Your task to perform on an android device: remove spam from my inbox in the gmail app Image 0: 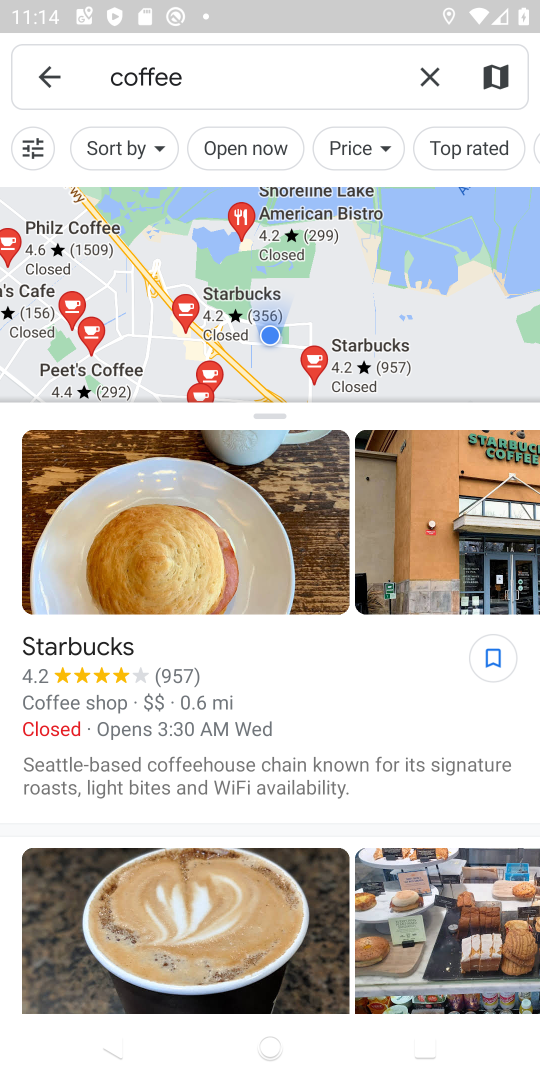
Step 0: press home button
Your task to perform on an android device: remove spam from my inbox in the gmail app Image 1: 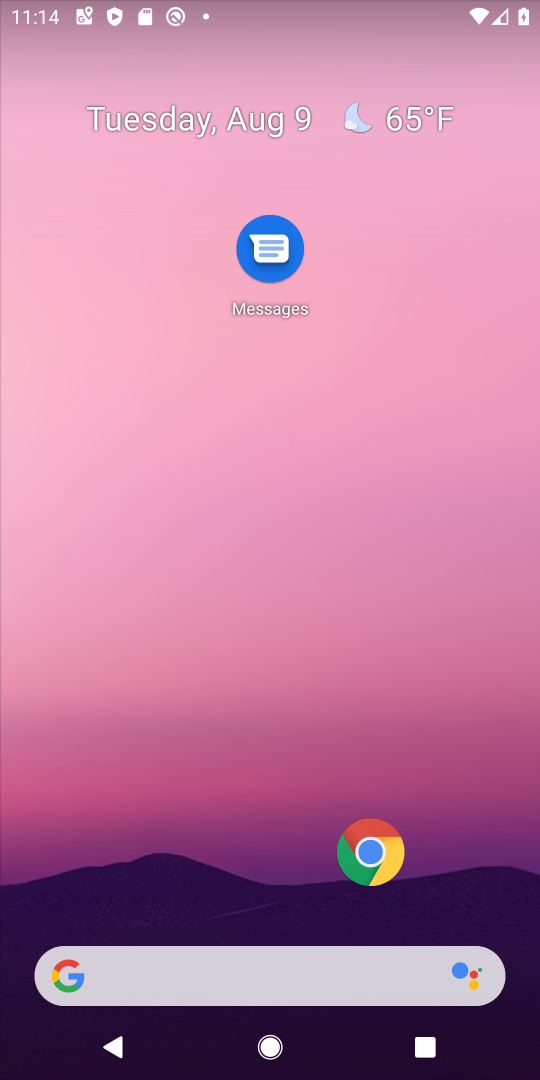
Step 1: drag from (280, 918) to (55, 32)
Your task to perform on an android device: remove spam from my inbox in the gmail app Image 2: 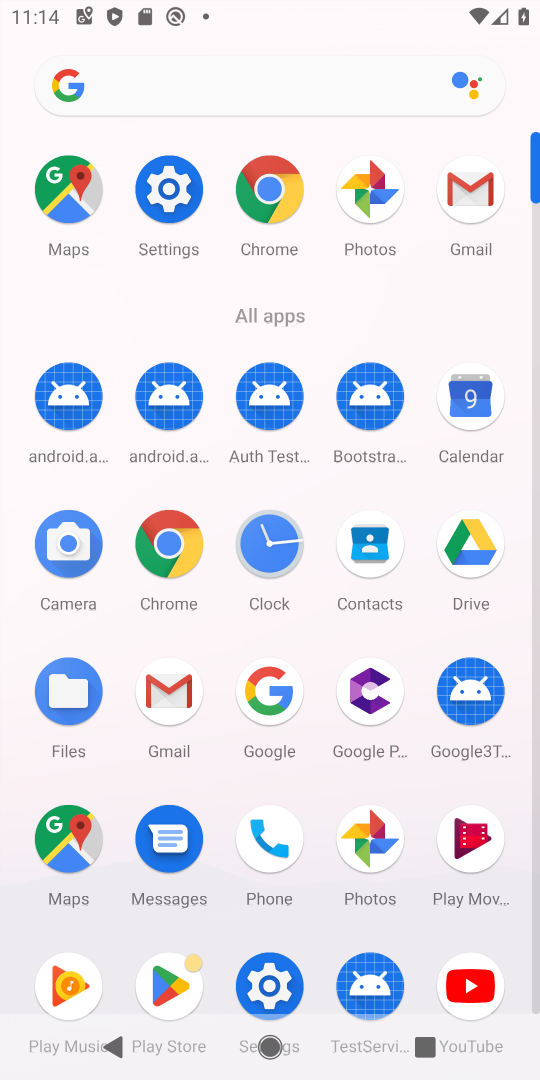
Step 2: click (482, 207)
Your task to perform on an android device: remove spam from my inbox in the gmail app Image 3: 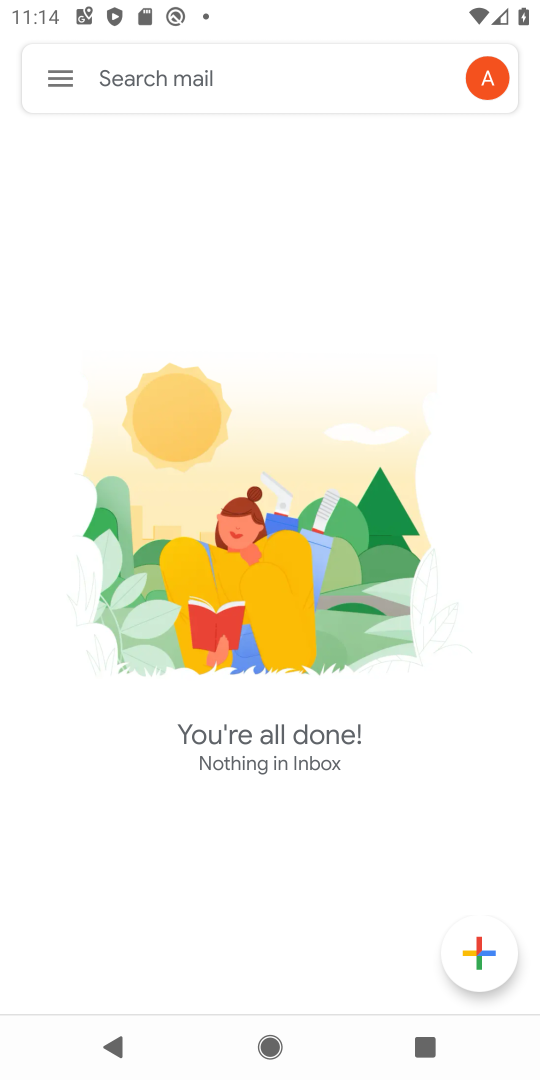
Step 3: click (67, 78)
Your task to perform on an android device: remove spam from my inbox in the gmail app Image 4: 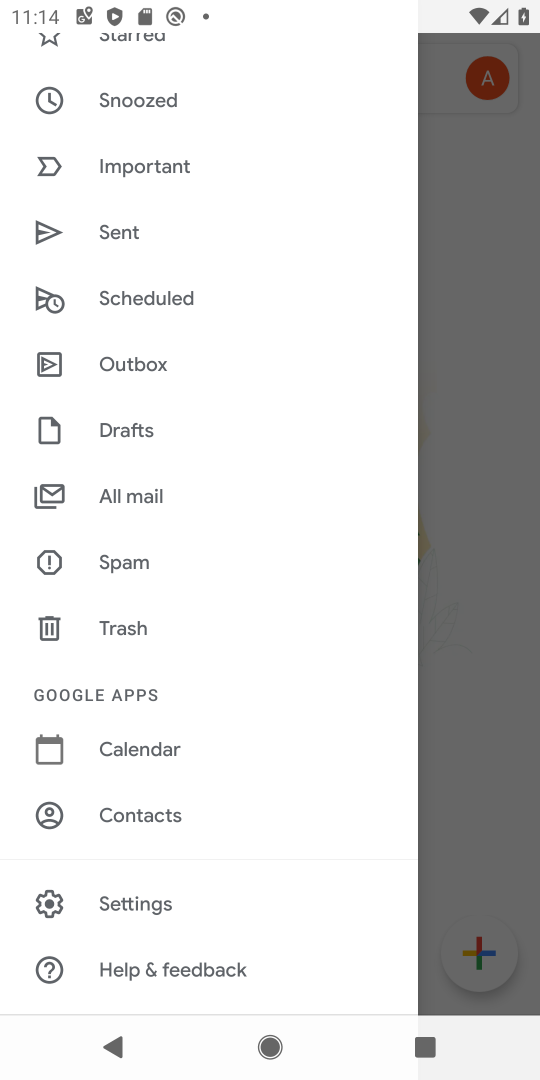
Step 4: click (74, 582)
Your task to perform on an android device: remove spam from my inbox in the gmail app Image 5: 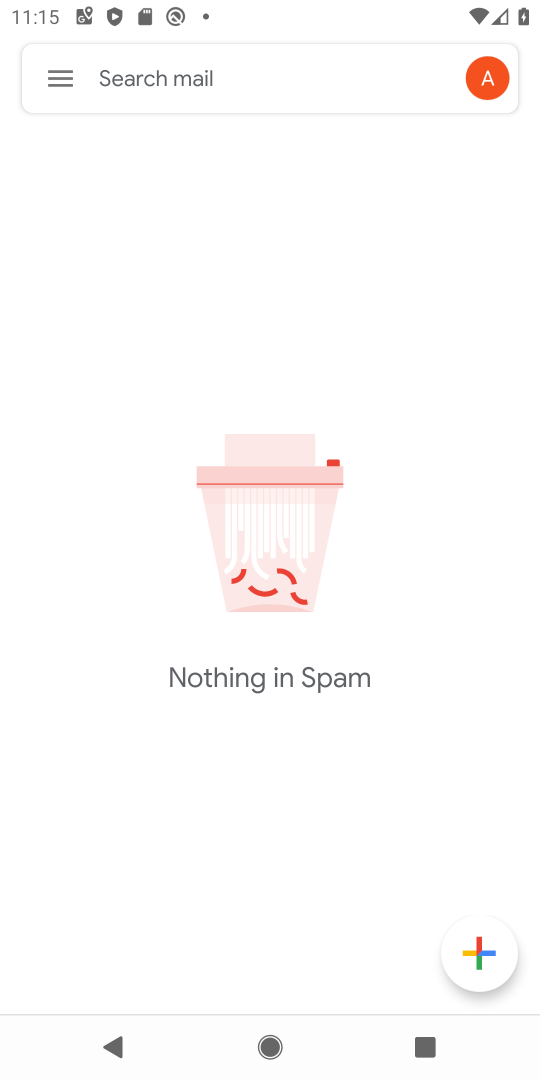
Step 5: task complete